Your task to perform on an android device: turn off javascript in the chrome app Image 0: 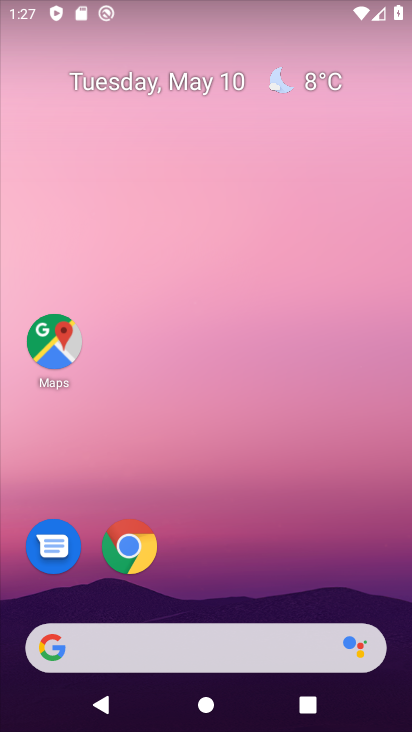
Step 0: click (126, 543)
Your task to perform on an android device: turn off javascript in the chrome app Image 1: 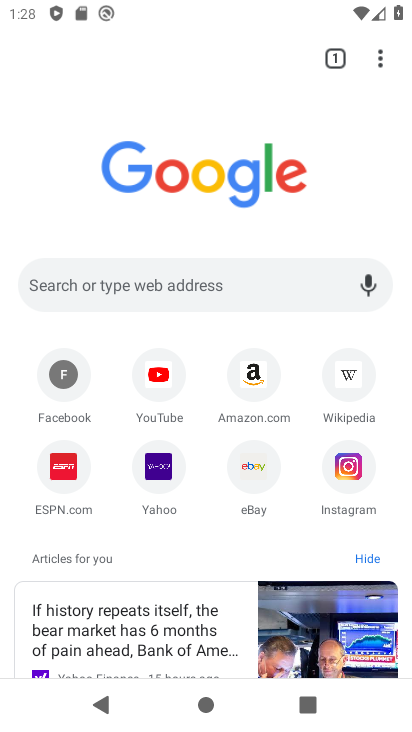
Step 1: click (380, 62)
Your task to perform on an android device: turn off javascript in the chrome app Image 2: 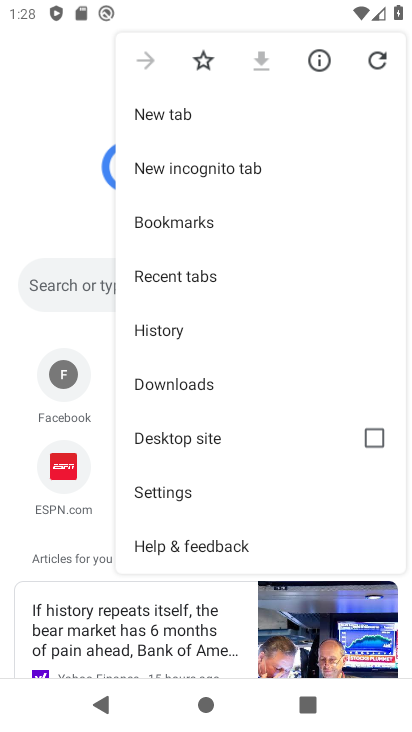
Step 2: click (165, 480)
Your task to perform on an android device: turn off javascript in the chrome app Image 3: 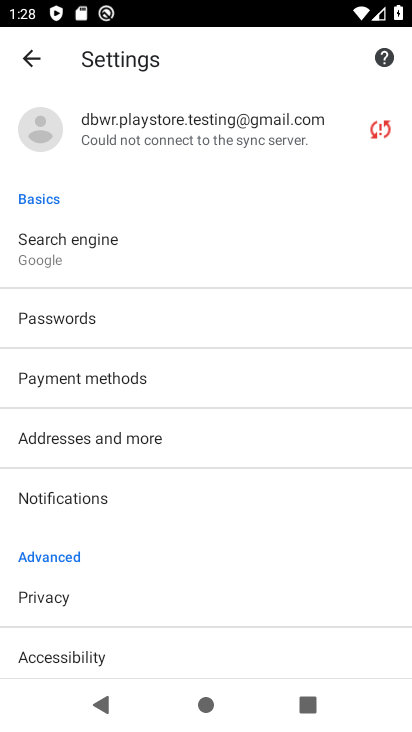
Step 3: drag from (203, 625) to (200, 222)
Your task to perform on an android device: turn off javascript in the chrome app Image 4: 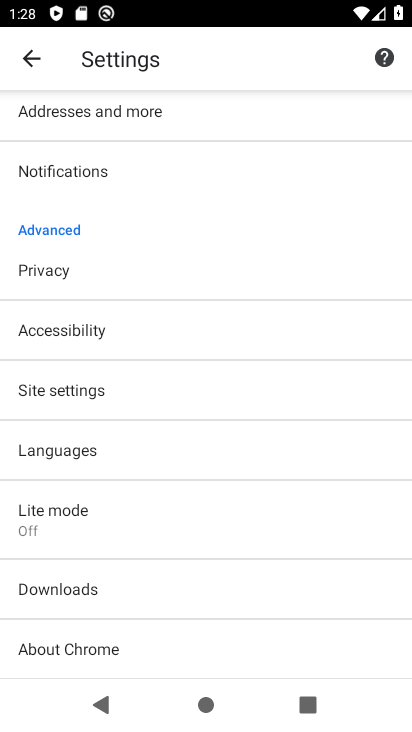
Step 4: click (48, 393)
Your task to perform on an android device: turn off javascript in the chrome app Image 5: 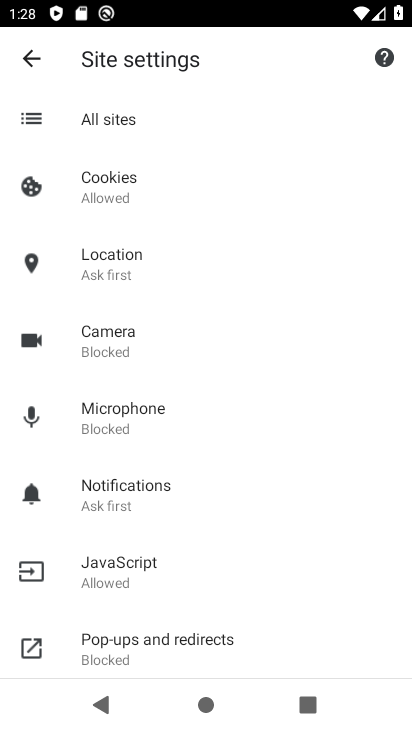
Step 5: click (117, 568)
Your task to perform on an android device: turn off javascript in the chrome app Image 6: 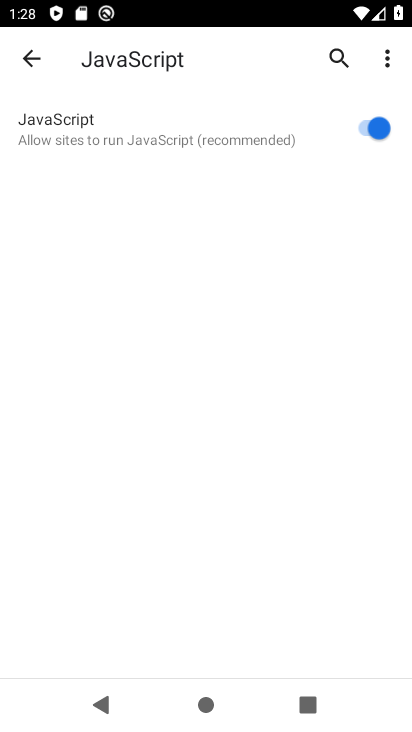
Step 6: click (362, 130)
Your task to perform on an android device: turn off javascript in the chrome app Image 7: 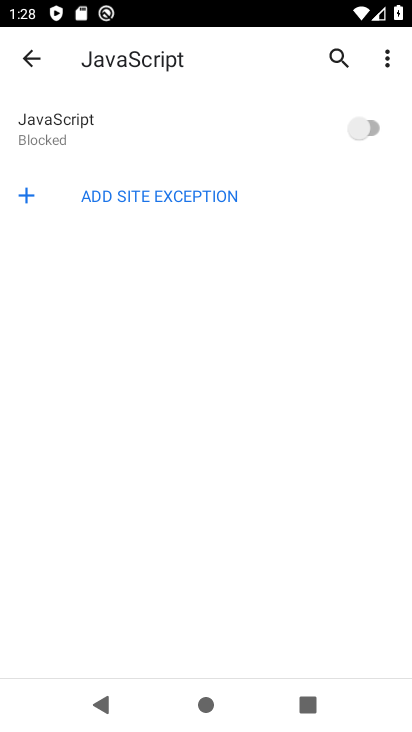
Step 7: task complete